Your task to perform on an android device: turn on notifications settings in the gmail app Image 0: 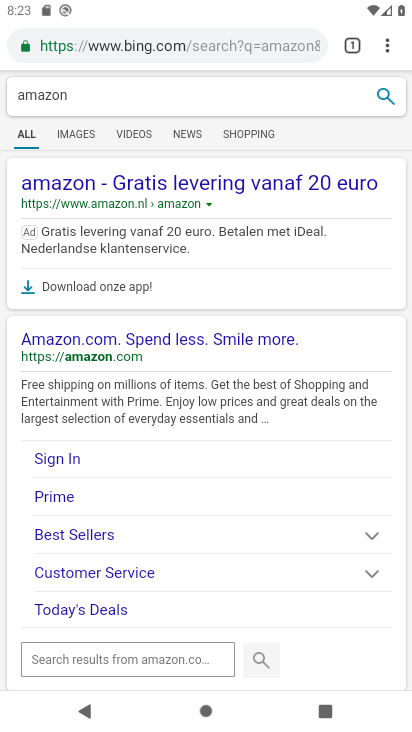
Step 0: press home button
Your task to perform on an android device: turn on notifications settings in the gmail app Image 1: 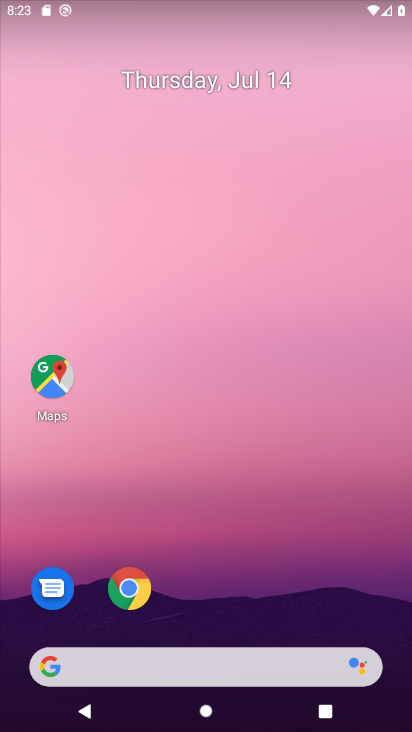
Step 1: drag from (332, 583) to (379, 120)
Your task to perform on an android device: turn on notifications settings in the gmail app Image 2: 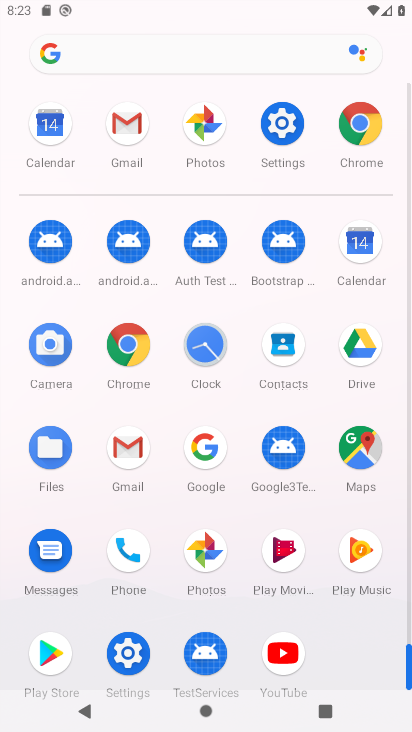
Step 2: click (133, 452)
Your task to perform on an android device: turn on notifications settings in the gmail app Image 3: 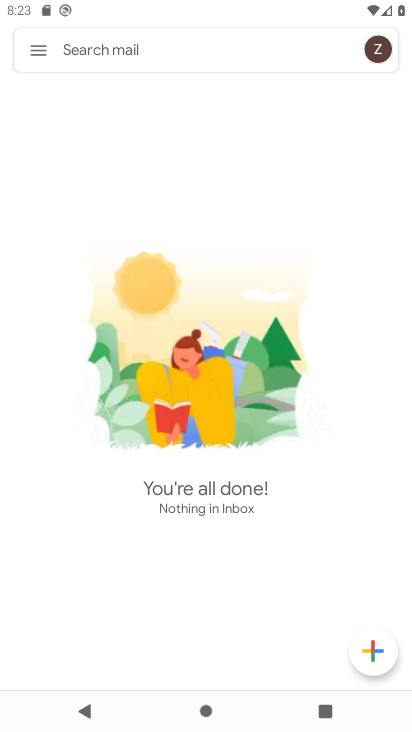
Step 3: click (40, 52)
Your task to perform on an android device: turn on notifications settings in the gmail app Image 4: 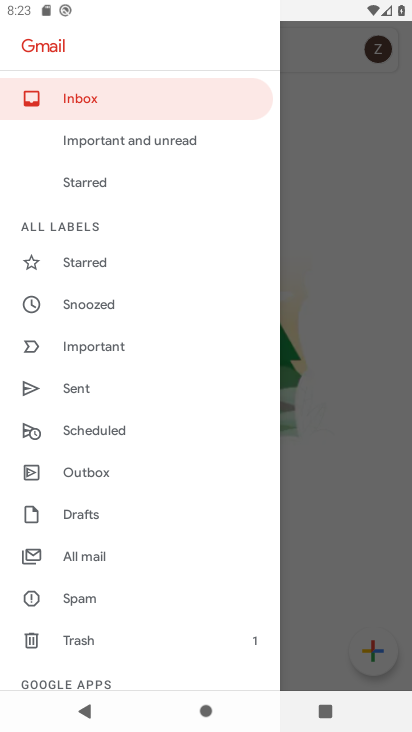
Step 4: drag from (172, 523) to (188, 423)
Your task to perform on an android device: turn on notifications settings in the gmail app Image 5: 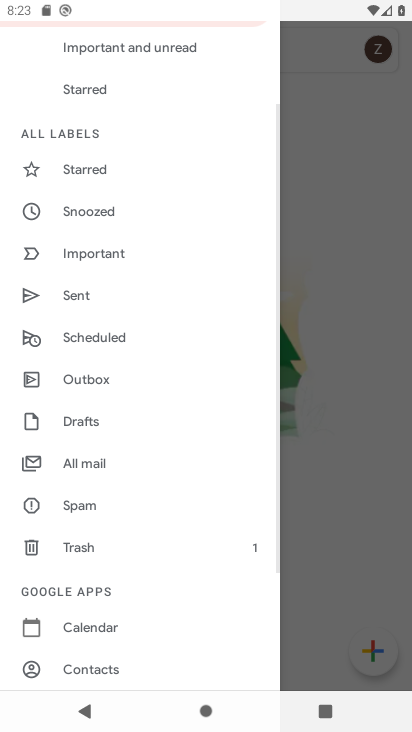
Step 5: drag from (216, 556) to (216, 342)
Your task to perform on an android device: turn on notifications settings in the gmail app Image 6: 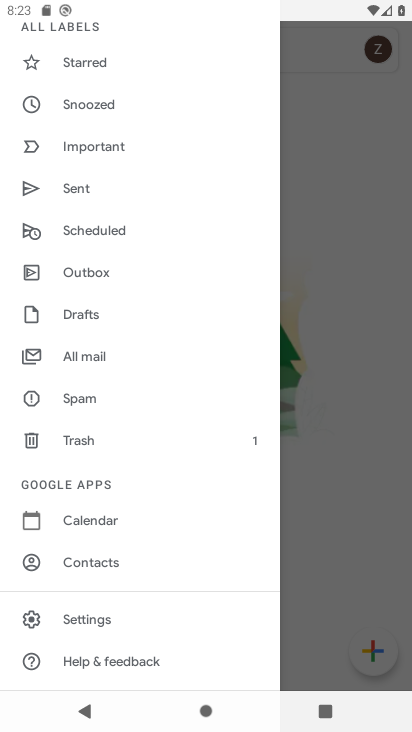
Step 6: drag from (171, 541) to (178, 464)
Your task to perform on an android device: turn on notifications settings in the gmail app Image 7: 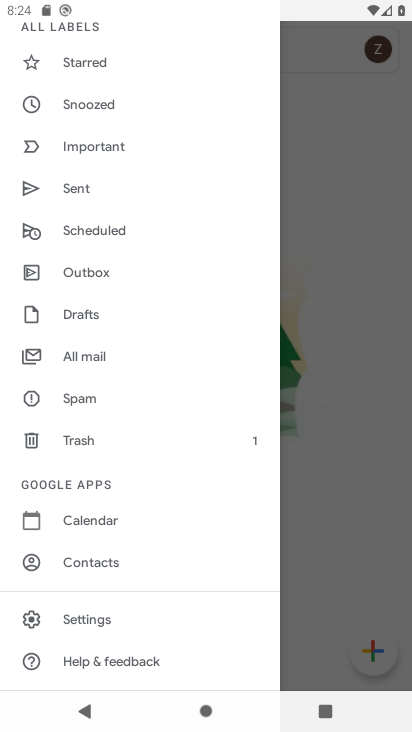
Step 7: click (122, 620)
Your task to perform on an android device: turn on notifications settings in the gmail app Image 8: 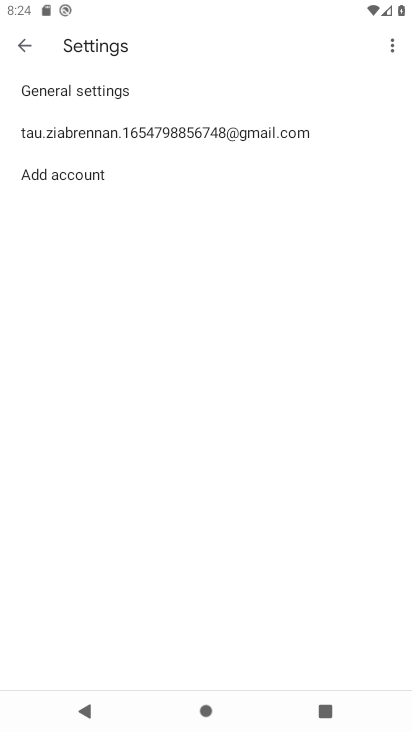
Step 8: click (292, 134)
Your task to perform on an android device: turn on notifications settings in the gmail app Image 9: 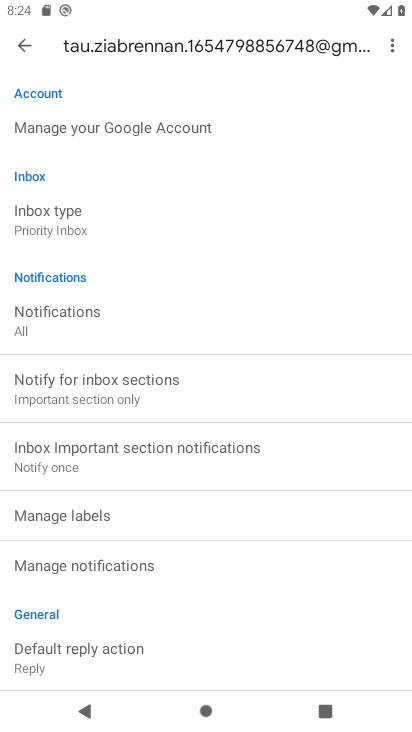
Step 9: drag from (339, 405) to (344, 331)
Your task to perform on an android device: turn on notifications settings in the gmail app Image 10: 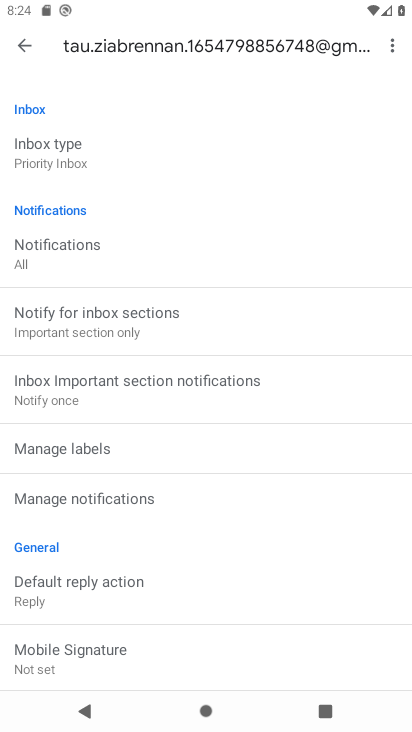
Step 10: drag from (337, 438) to (335, 356)
Your task to perform on an android device: turn on notifications settings in the gmail app Image 11: 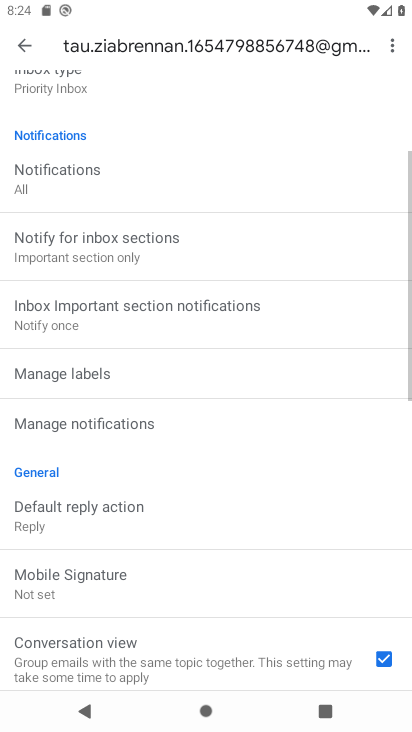
Step 11: drag from (336, 443) to (336, 377)
Your task to perform on an android device: turn on notifications settings in the gmail app Image 12: 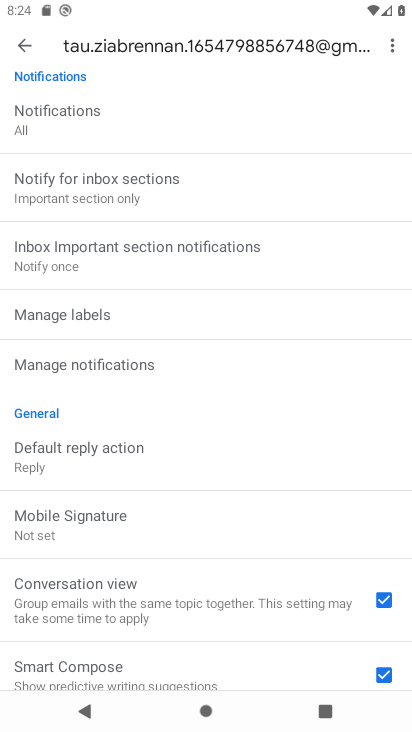
Step 12: drag from (334, 436) to (337, 356)
Your task to perform on an android device: turn on notifications settings in the gmail app Image 13: 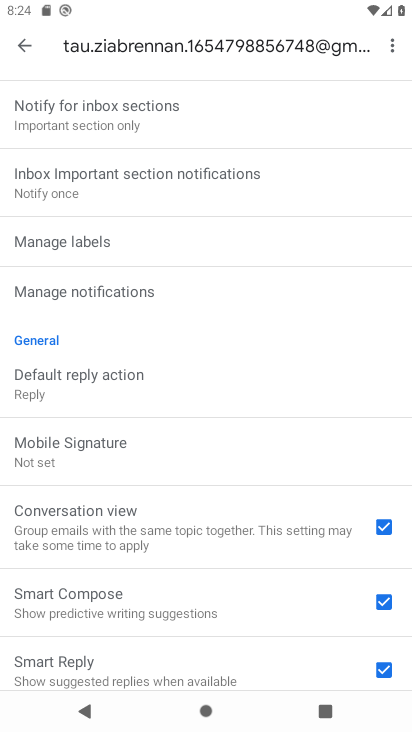
Step 13: drag from (322, 450) to (322, 347)
Your task to perform on an android device: turn on notifications settings in the gmail app Image 14: 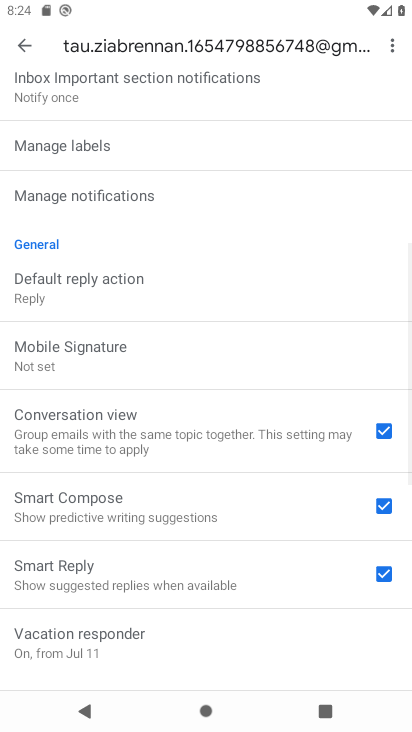
Step 14: drag from (292, 466) to (297, 357)
Your task to perform on an android device: turn on notifications settings in the gmail app Image 15: 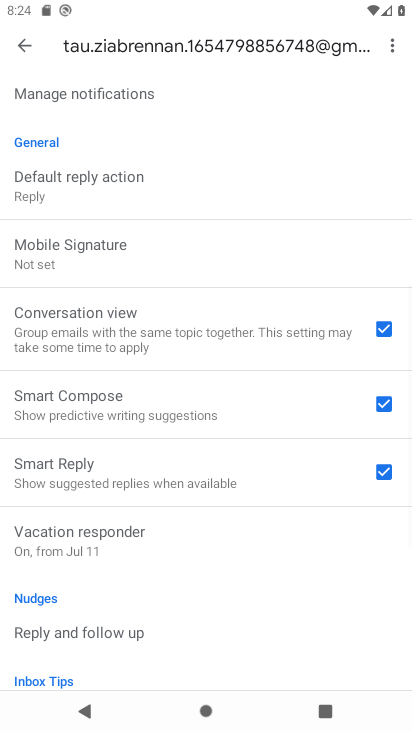
Step 15: drag from (285, 480) to (282, 274)
Your task to perform on an android device: turn on notifications settings in the gmail app Image 16: 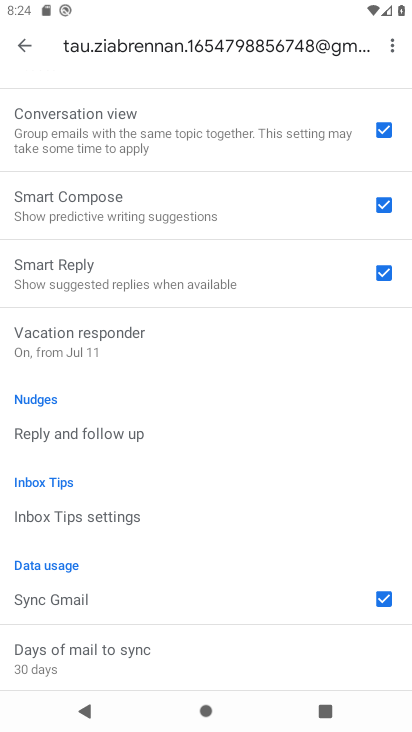
Step 16: drag from (284, 458) to (298, 283)
Your task to perform on an android device: turn on notifications settings in the gmail app Image 17: 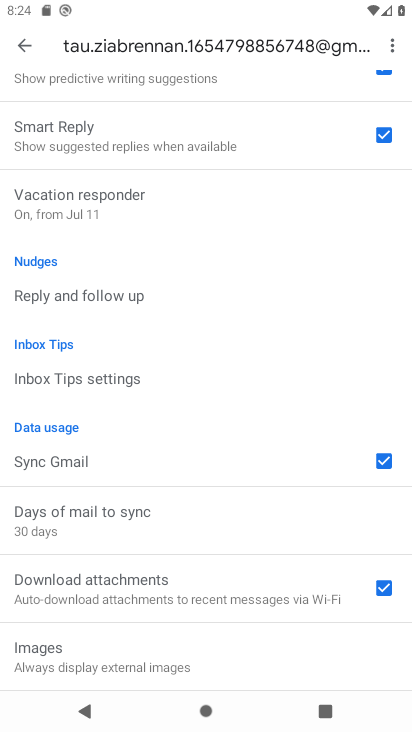
Step 17: drag from (286, 327) to (287, 422)
Your task to perform on an android device: turn on notifications settings in the gmail app Image 18: 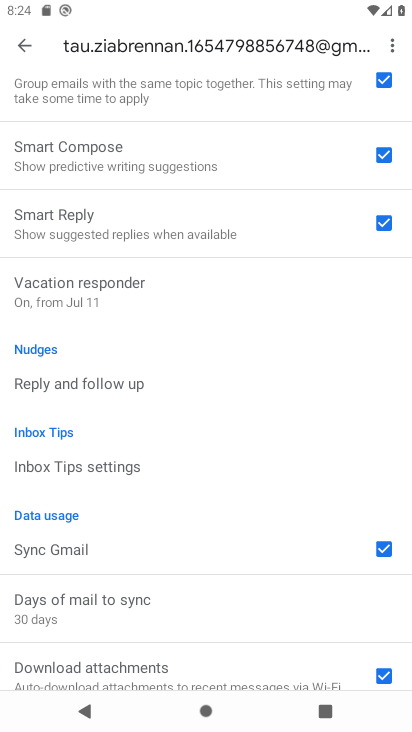
Step 18: drag from (296, 283) to (296, 403)
Your task to perform on an android device: turn on notifications settings in the gmail app Image 19: 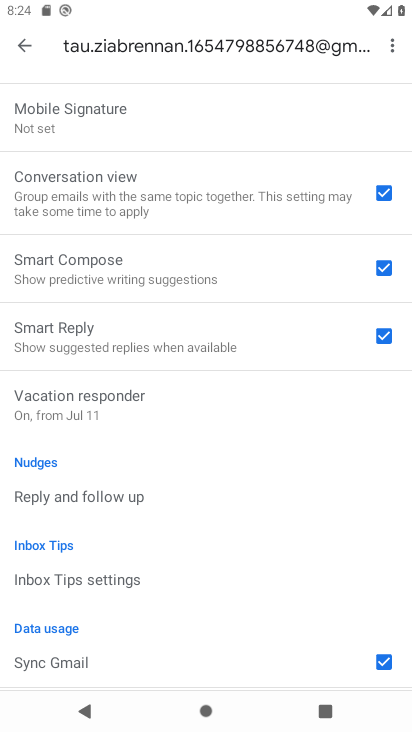
Step 19: drag from (296, 285) to (298, 409)
Your task to perform on an android device: turn on notifications settings in the gmail app Image 20: 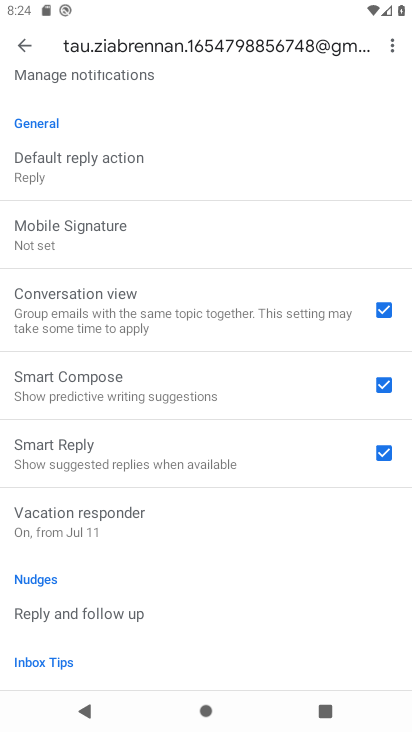
Step 20: drag from (301, 237) to (301, 371)
Your task to perform on an android device: turn on notifications settings in the gmail app Image 21: 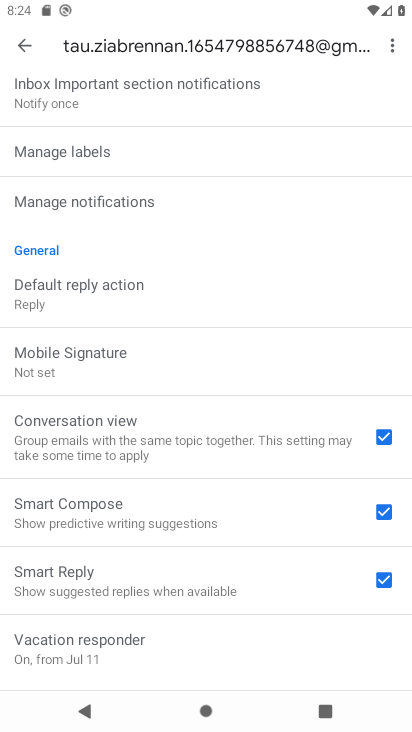
Step 21: drag from (301, 251) to (298, 432)
Your task to perform on an android device: turn on notifications settings in the gmail app Image 22: 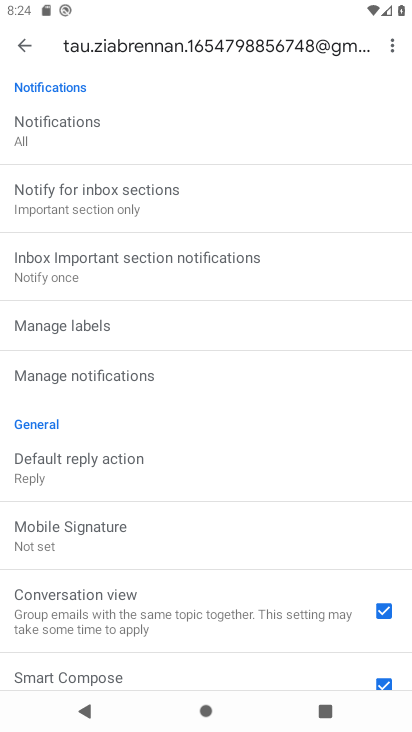
Step 22: click (207, 388)
Your task to perform on an android device: turn on notifications settings in the gmail app Image 23: 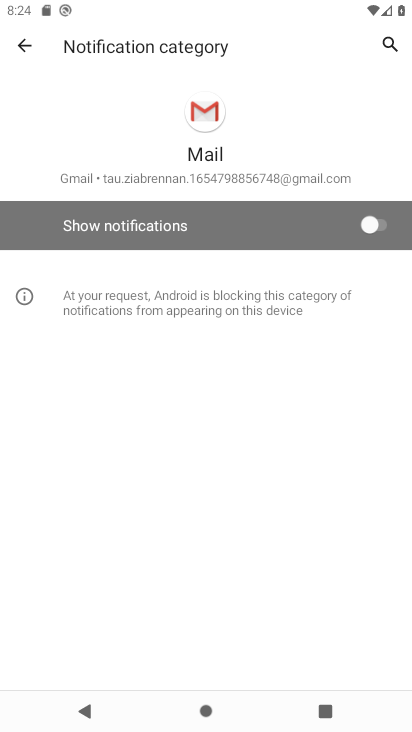
Step 23: click (370, 238)
Your task to perform on an android device: turn on notifications settings in the gmail app Image 24: 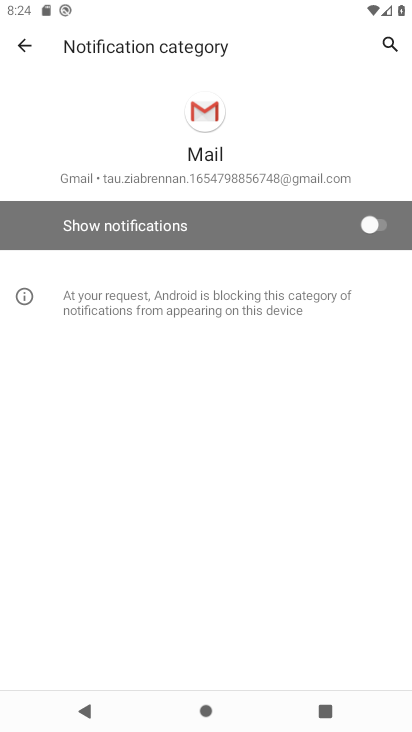
Step 24: click (362, 232)
Your task to perform on an android device: turn on notifications settings in the gmail app Image 25: 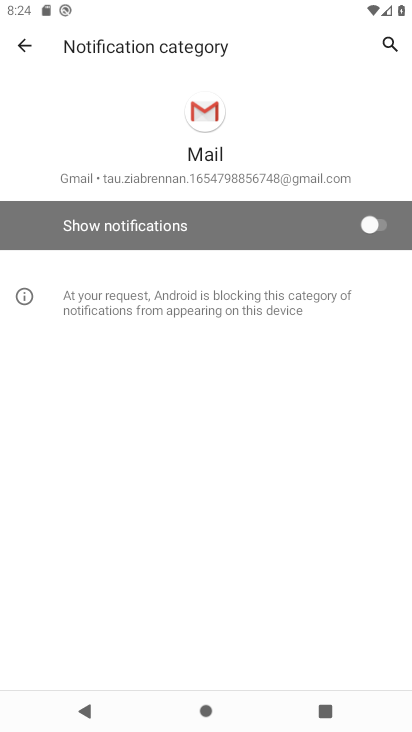
Step 25: task complete